Your task to perform on an android device: open app "Roku - Official Remote Control" (install if not already installed) and enter user name: "autumnal@gmail.com" and password: "stuffing" Image 0: 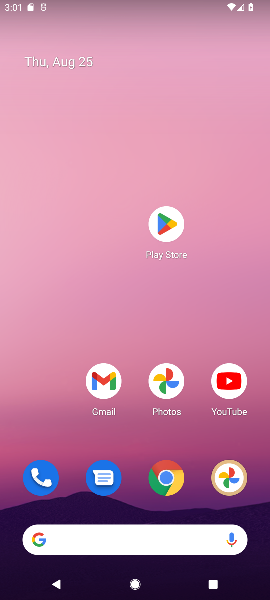
Step 0: click (167, 224)
Your task to perform on an android device: open app "Roku - Official Remote Control" (install if not already installed) and enter user name: "autumnal@gmail.com" and password: "stuffing" Image 1: 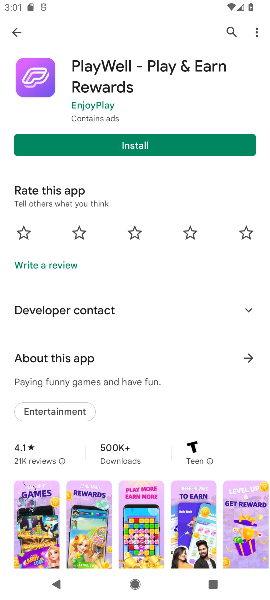
Step 1: click (229, 26)
Your task to perform on an android device: open app "Roku - Official Remote Control" (install if not already installed) and enter user name: "autumnal@gmail.com" and password: "stuffing" Image 2: 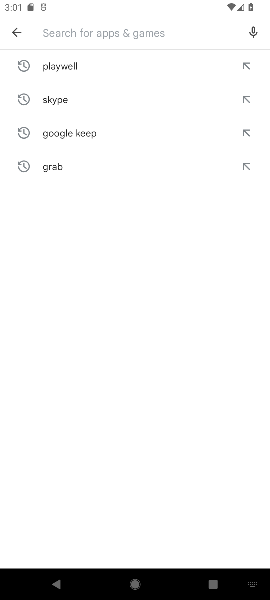
Step 2: type "Roku - Official Remote Control"
Your task to perform on an android device: open app "Roku - Official Remote Control" (install if not already installed) and enter user name: "autumnal@gmail.com" and password: "stuffing" Image 3: 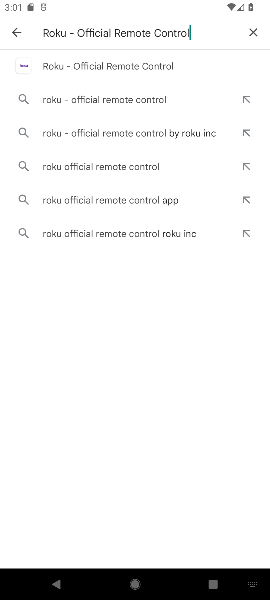
Step 3: click (122, 64)
Your task to perform on an android device: open app "Roku - Official Remote Control" (install if not already installed) and enter user name: "autumnal@gmail.com" and password: "stuffing" Image 4: 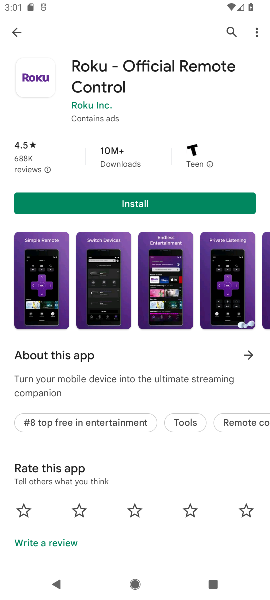
Step 4: click (135, 205)
Your task to perform on an android device: open app "Roku - Official Remote Control" (install if not already installed) and enter user name: "autumnal@gmail.com" and password: "stuffing" Image 5: 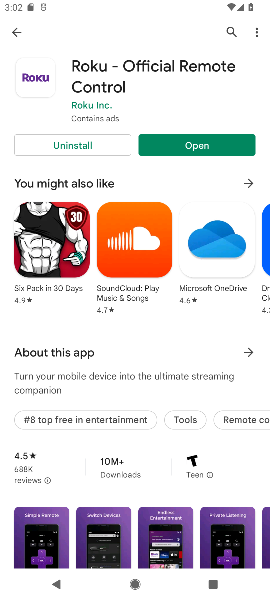
Step 5: click (203, 144)
Your task to perform on an android device: open app "Roku - Official Remote Control" (install if not already installed) and enter user name: "autumnal@gmail.com" and password: "stuffing" Image 6: 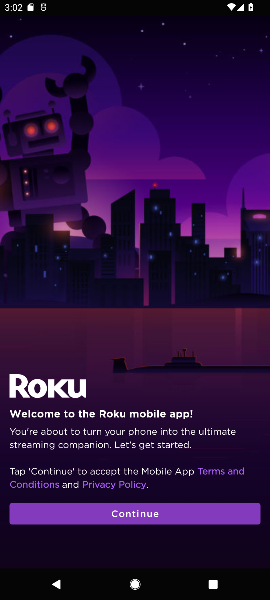
Step 6: click (139, 511)
Your task to perform on an android device: open app "Roku - Official Remote Control" (install if not already installed) and enter user name: "autumnal@gmail.com" and password: "stuffing" Image 7: 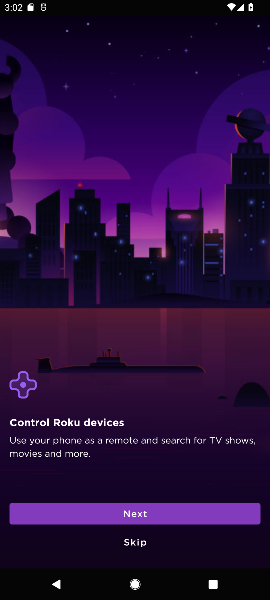
Step 7: click (138, 544)
Your task to perform on an android device: open app "Roku - Official Remote Control" (install if not already installed) and enter user name: "autumnal@gmail.com" and password: "stuffing" Image 8: 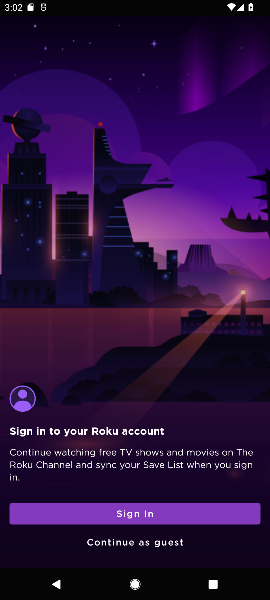
Step 8: click (137, 514)
Your task to perform on an android device: open app "Roku - Official Remote Control" (install if not already installed) and enter user name: "autumnal@gmail.com" and password: "stuffing" Image 9: 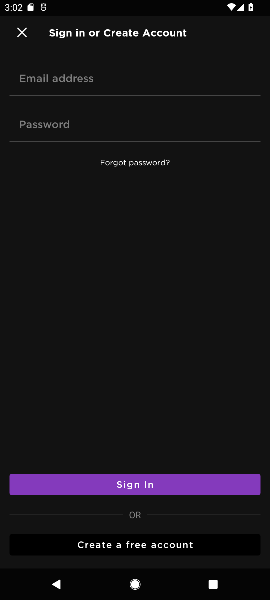
Step 9: click (91, 72)
Your task to perform on an android device: open app "Roku - Official Remote Control" (install if not already installed) and enter user name: "autumnal@gmail.com" and password: "stuffing" Image 10: 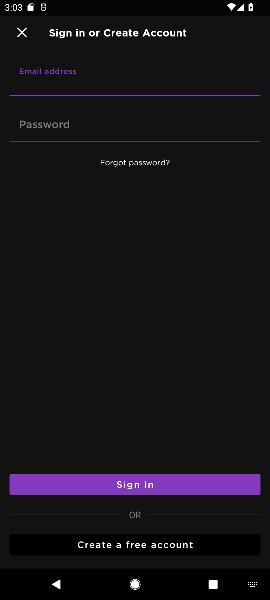
Step 10: click (56, 80)
Your task to perform on an android device: open app "Roku - Official Remote Control" (install if not already installed) and enter user name: "autumnal@gmail.com" and password: "stuffing" Image 11: 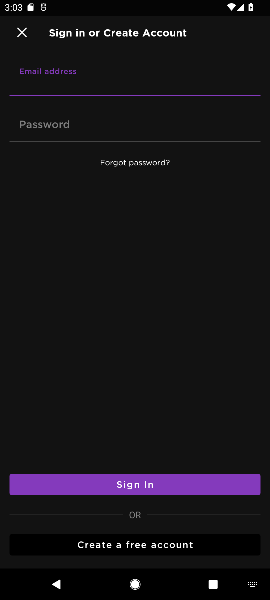
Step 11: type "autumnal@gmail.com"
Your task to perform on an android device: open app "Roku - Official Remote Control" (install if not already installed) and enter user name: "autumnal@gmail.com" and password: "stuffing" Image 12: 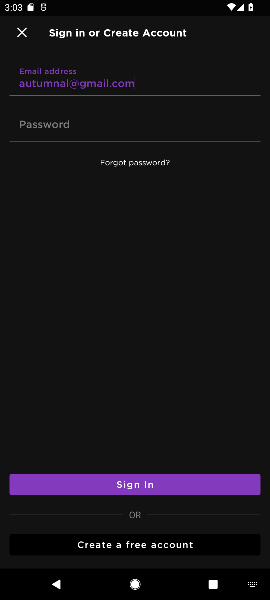
Step 12: click (44, 122)
Your task to perform on an android device: open app "Roku - Official Remote Control" (install if not already installed) and enter user name: "autumnal@gmail.com" and password: "stuffing" Image 13: 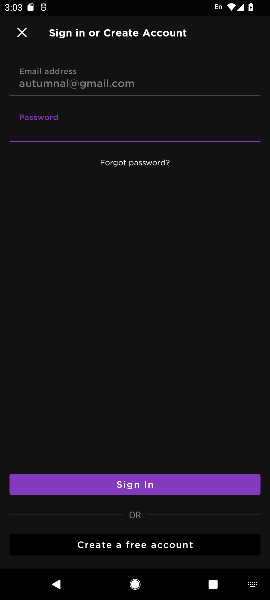
Step 13: type "stuffing"
Your task to perform on an android device: open app "Roku - Official Remote Control" (install if not already installed) and enter user name: "autumnal@gmail.com" and password: "stuffing" Image 14: 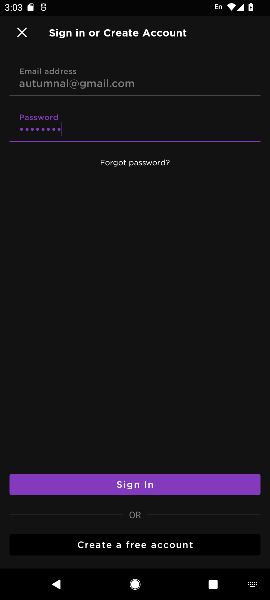
Step 14: task complete